Your task to perform on an android device: delete the emails in spam in the gmail app Image 0: 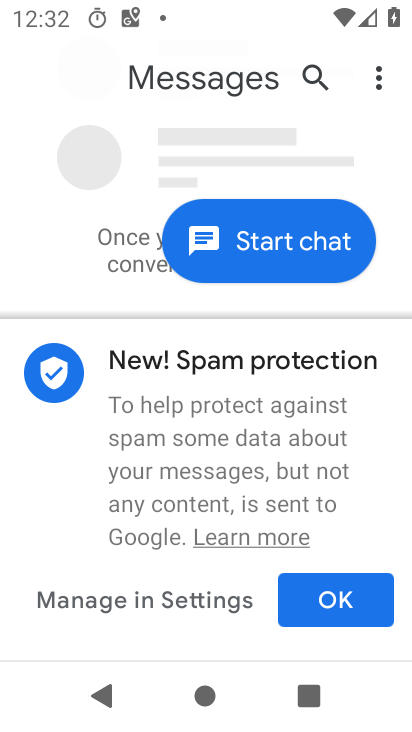
Step 0: press home button
Your task to perform on an android device: delete the emails in spam in the gmail app Image 1: 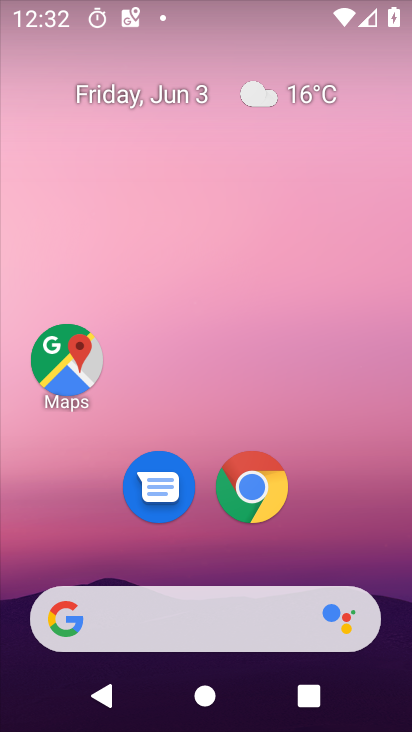
Step 1: drag from (177, 623) to (161, 88)
Your task to perform on an android device: delete the emails in spam in the gmail app Image 2: 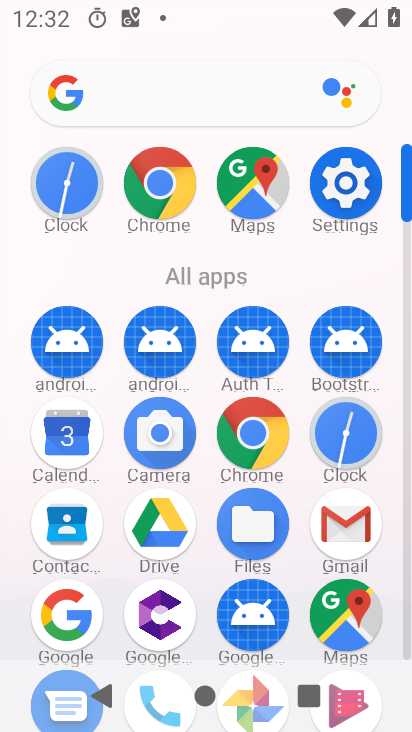
Step 2: click (349, 538)
Your task to perform on an android device: delete the emails in spam in the gmail app Image 3: 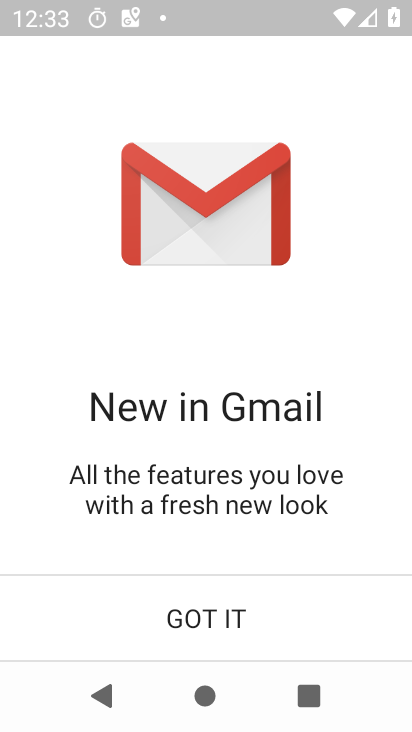
Step 3: click (243, 585)
Your task to perform on an android device: delete the emails in spam in the gmail app Image 4: 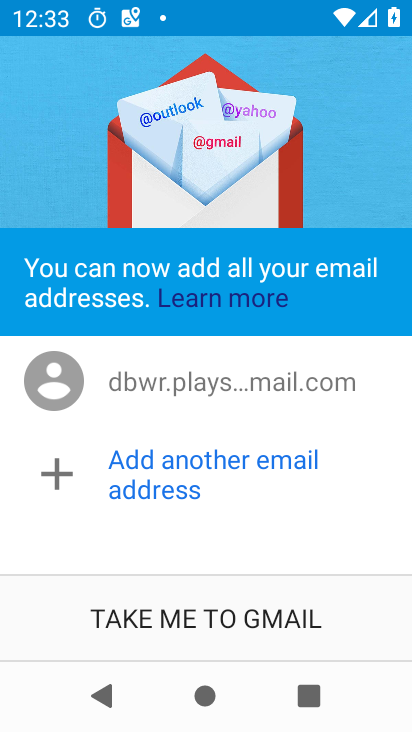
Step 4: click (208, 600)
Your task to perform on an android device: delete the emails in spam in the gmail app Image 5: 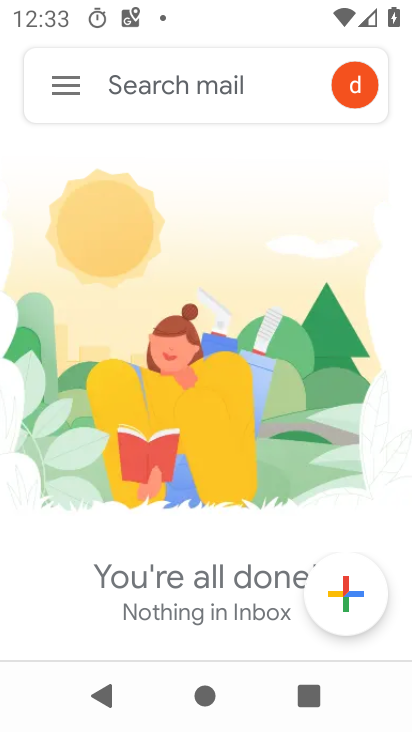
Step 5: click (77, 82)
Your task to perform on an android device: delete the emails in spam in the gmail app Image 6: 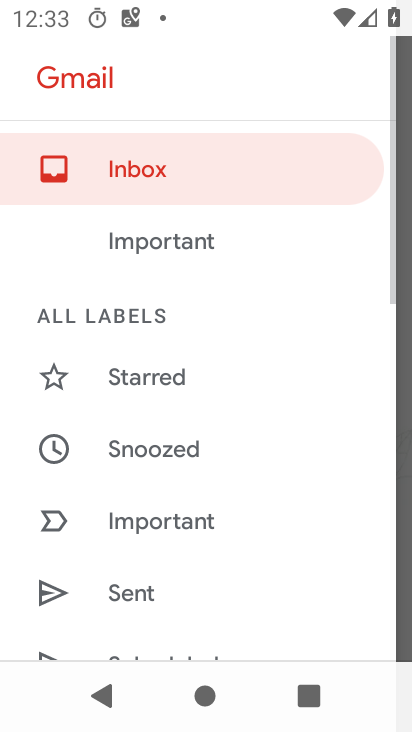
Step 6: drag from (151, 489) to (160, 15)
Your task to perform on an android device: delete the emails in spam in the gmail app Image 7: 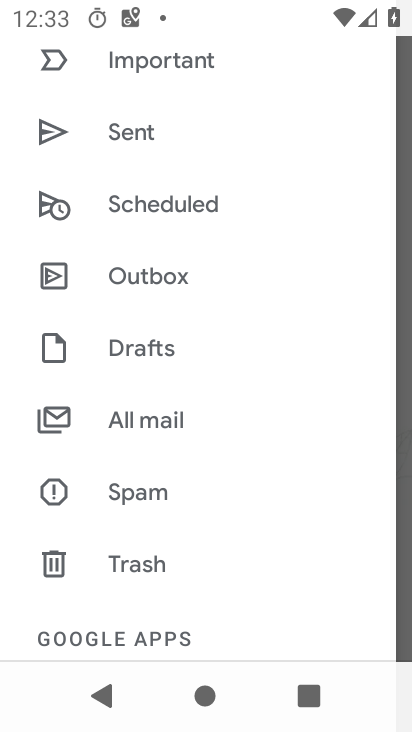
Step 7: click (157, 485)
Your task to perform on an android device: delete the emails in spam in the gmail app Image 8: 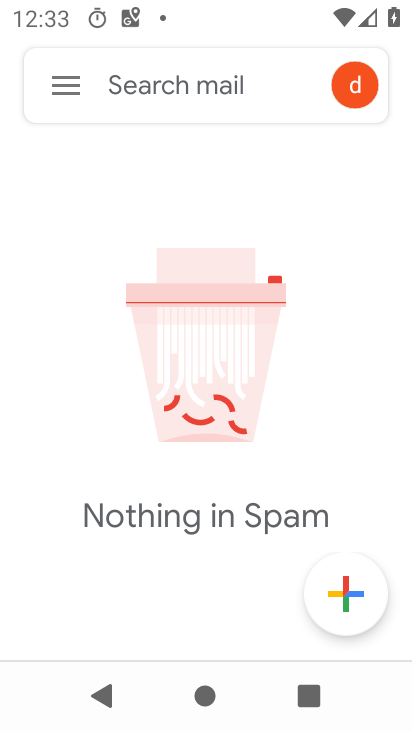
Step 8: task complete